Your task to perform on an android device: Open settings Image 0: 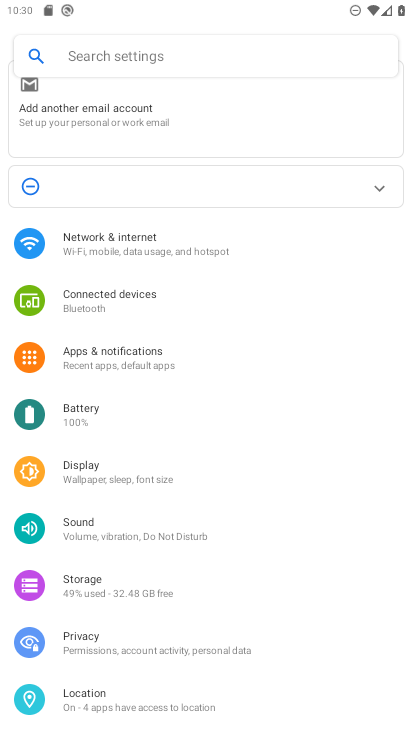
Step 0: drag from (232, 516) to (260, 240)
Your task to perform on an android device: Open settings Image 1: 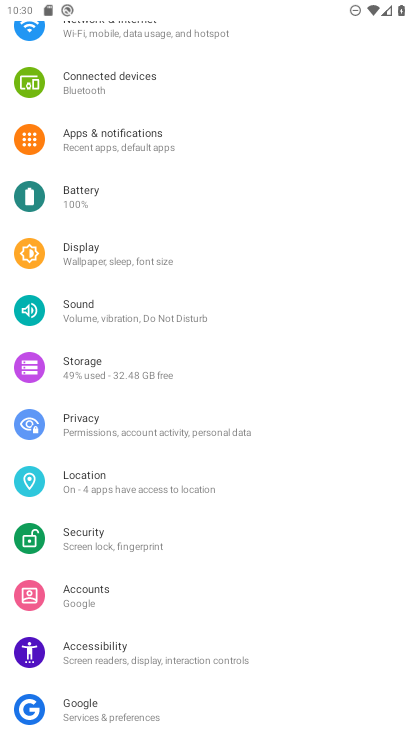
Step 1: task complete